Your task to perform on an android device: Go to Yahoo.com Image 0: 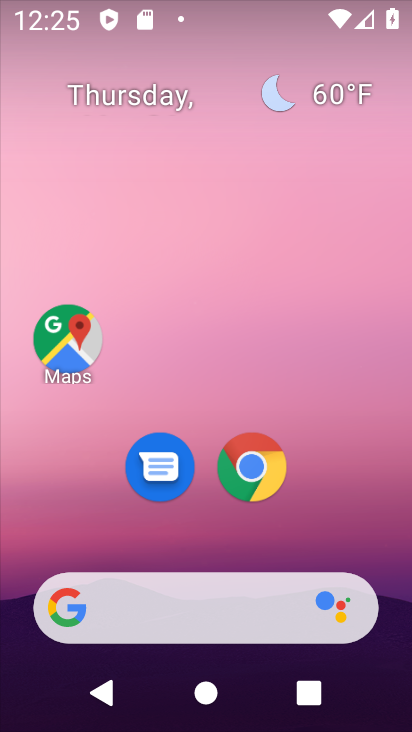
Step 0: drag from (230, 528) to (99, 25)
Your task to perform on an android device: Go to Yahoo.com Image 1: 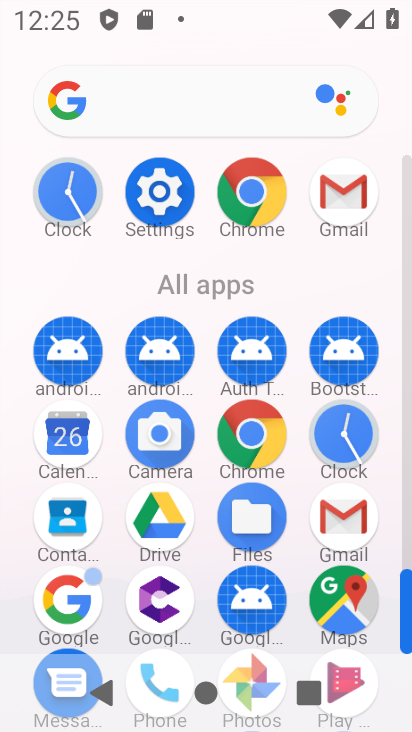
Step 1: click (254, 219)
Your task to perform on an android device: Go to Yahoo.com Image 2: 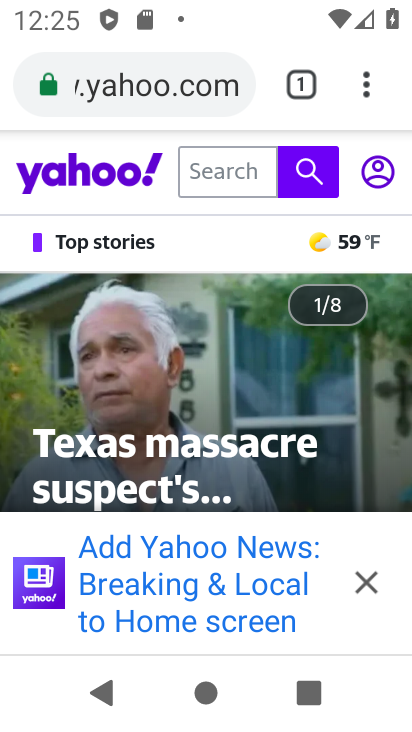
Step 2: task complete